Your task to perform on an android device: uninstall "Google Duo" Image 0: 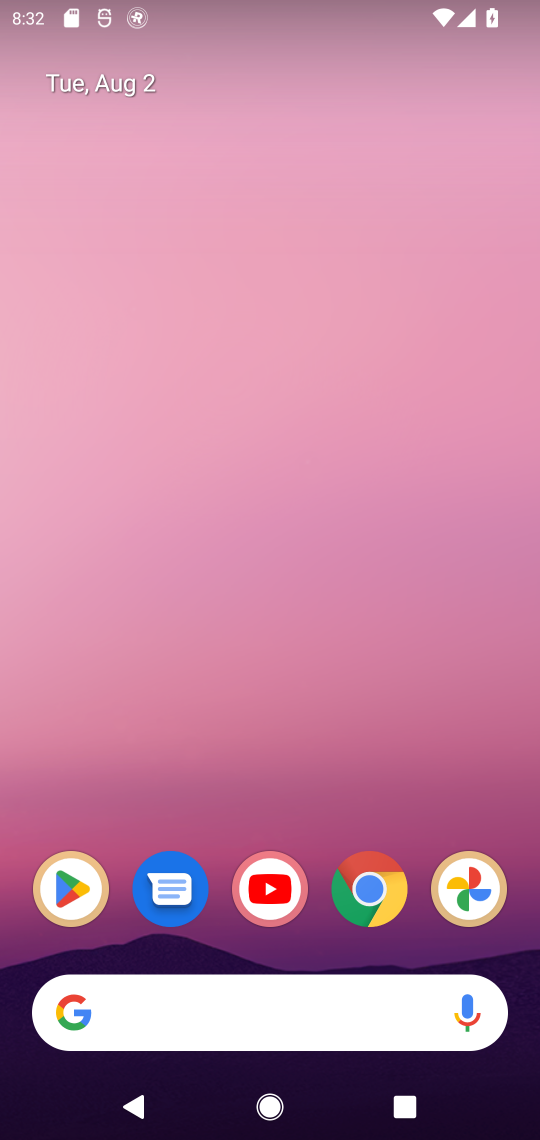
Step 0: press home button
Your task to perform on an android device: uninstall "Google Duo" Image 1: 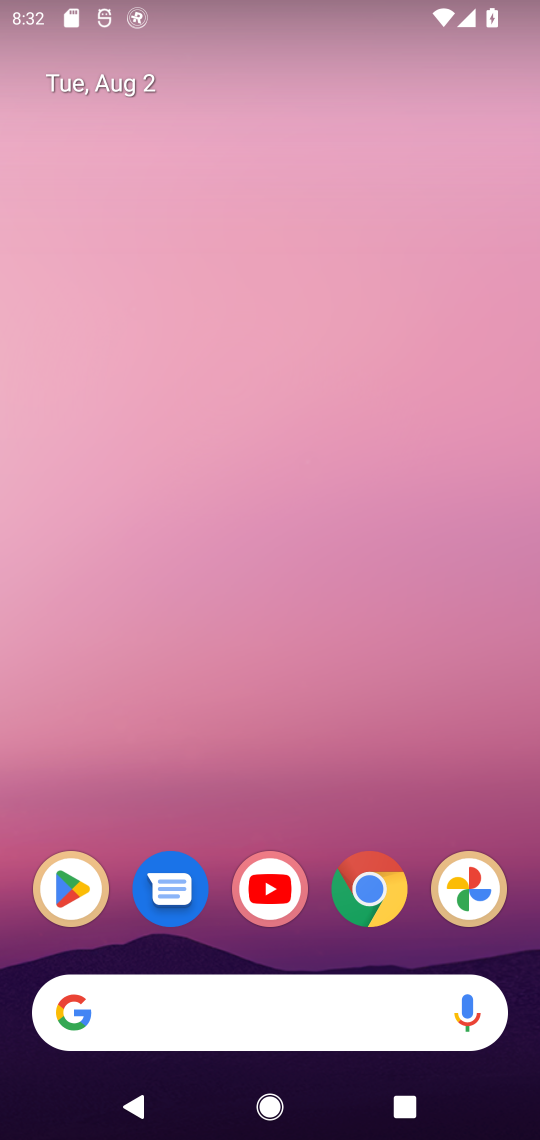
Step 1: click (72, 893)
Your task to perform on an android device: uninstall "Google Duo" Image 2: 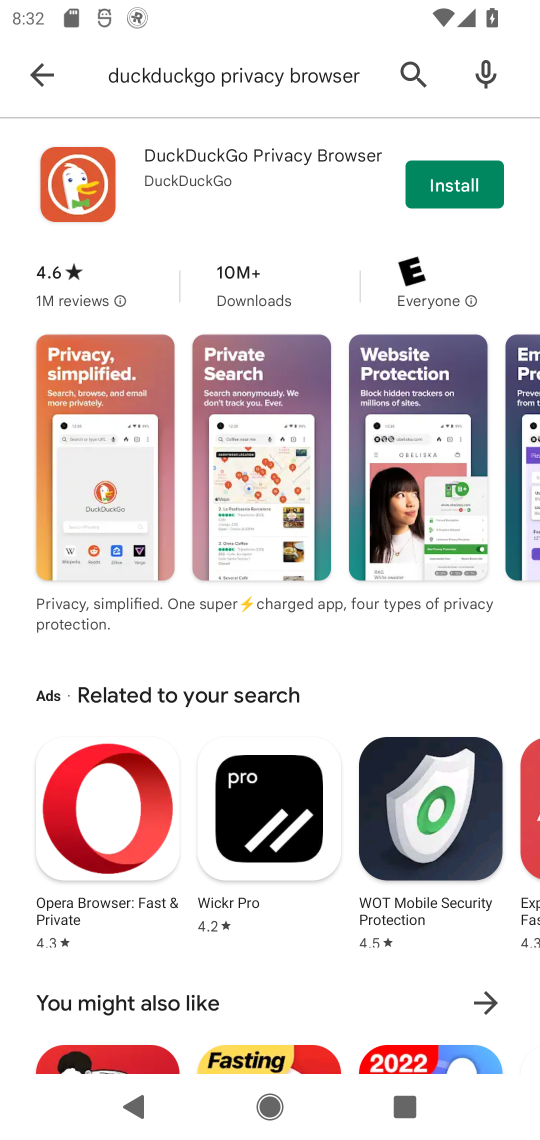
Step 2: click (408, 76)
Your task to perform on an android device: uninstall "Google Duo" Image 3: 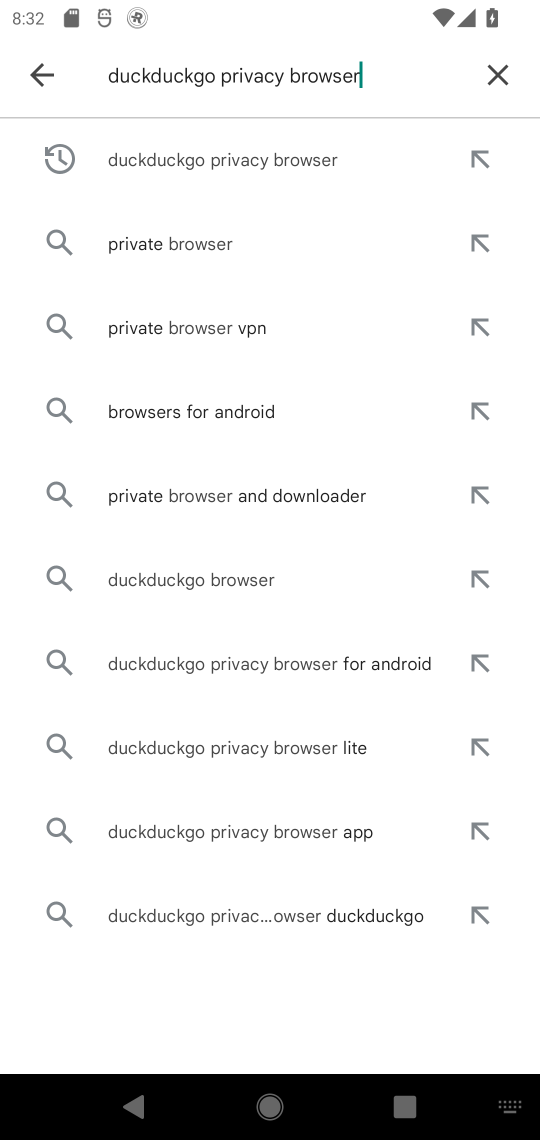
Step 3: click (494, 66)
Your task to perform on an android device: uninstall "Google Duo" Image 4: 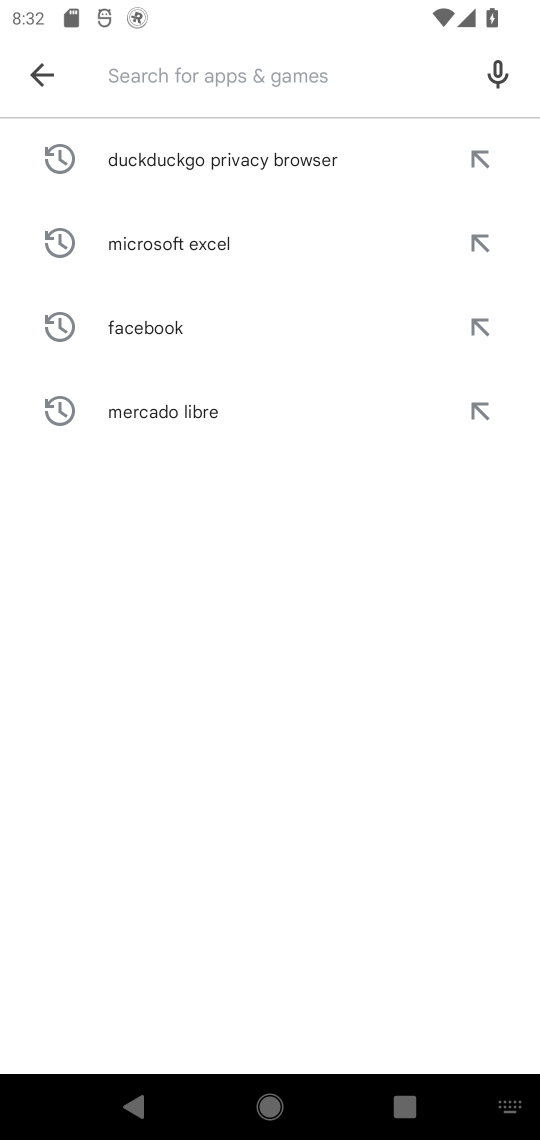
Step 4: type "Google Duo"
Your task to perform on an android device: uninstall "Google Duo" Image 5: 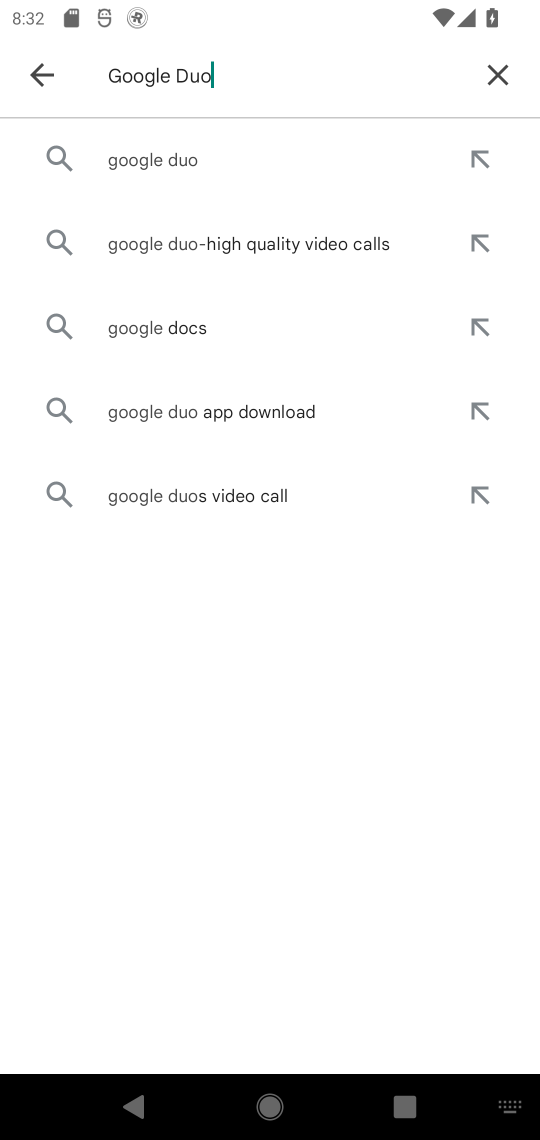
Step 5: click (188, 172)
Your task to perform on an android device: uninstall "Google Duo" Image 6: 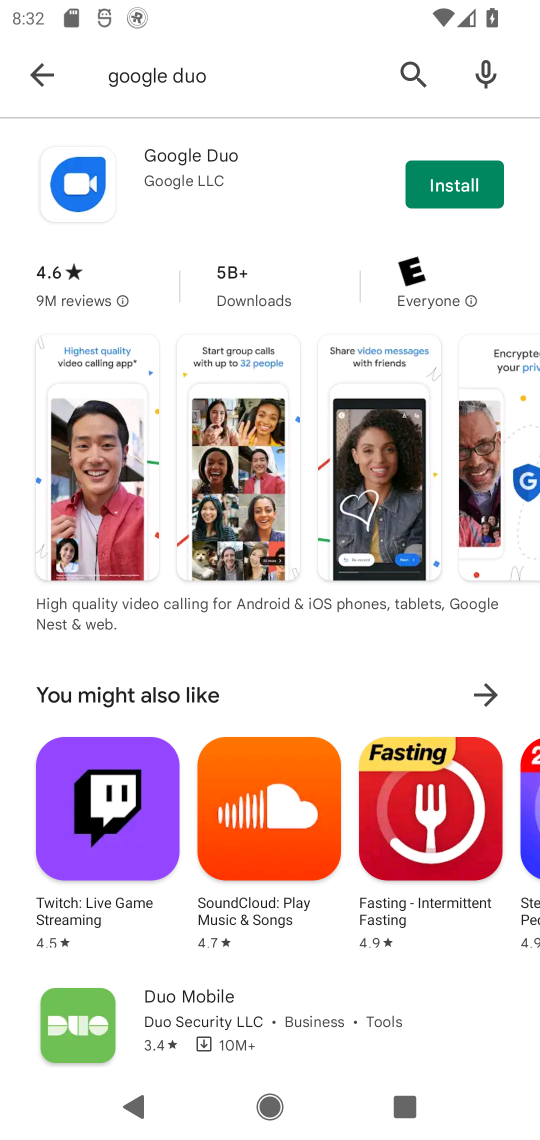
Step 6: task complete